Your task to perform on an android device: Open Google Image 0: 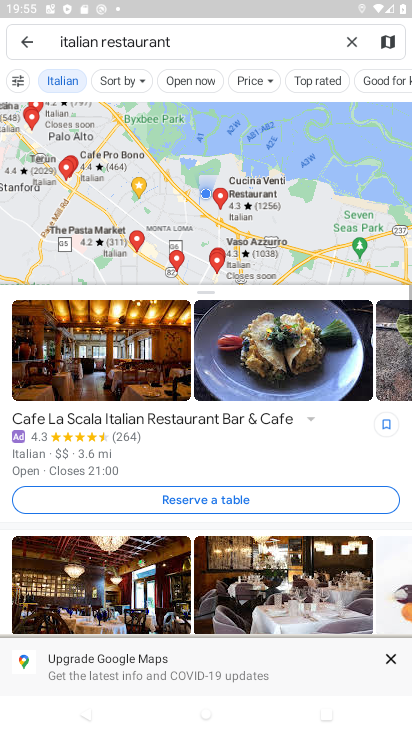
Step 0: press home button
Your task to perform on an android device: Open Google Image 1: 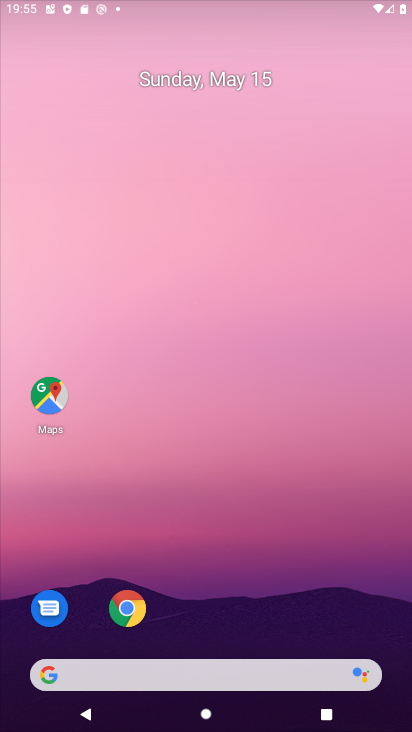
Step 1: drag from (233, 592) to (273, 40)
Your task to perform on an android device: Open Google Image 2: 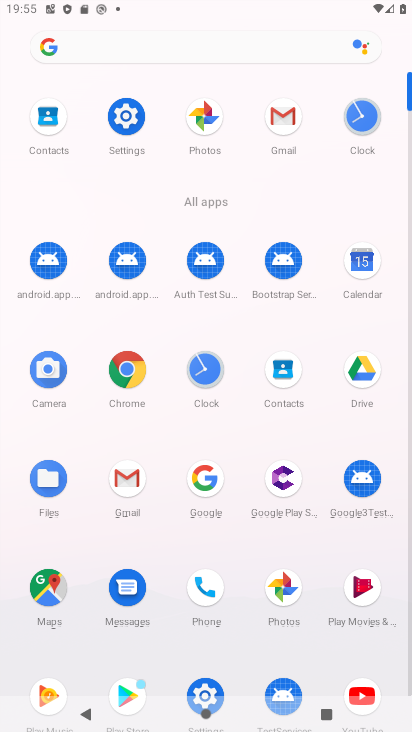
Step 2: click (208, 467)
Your task to perform on an android device: Open Google Image 3: 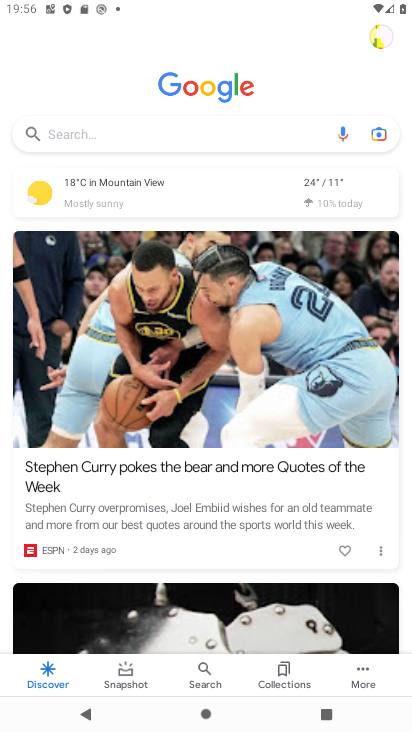
Step 3: task complete